Your task to perform on an android device: read, delete, or share a saved page in the chrome app Image 0: 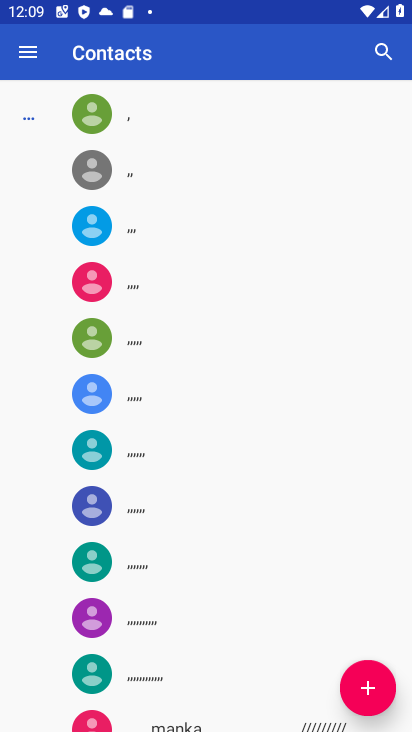
Step 0: task complete